Your task to perform on an android device: What is the recent news? Image 0: 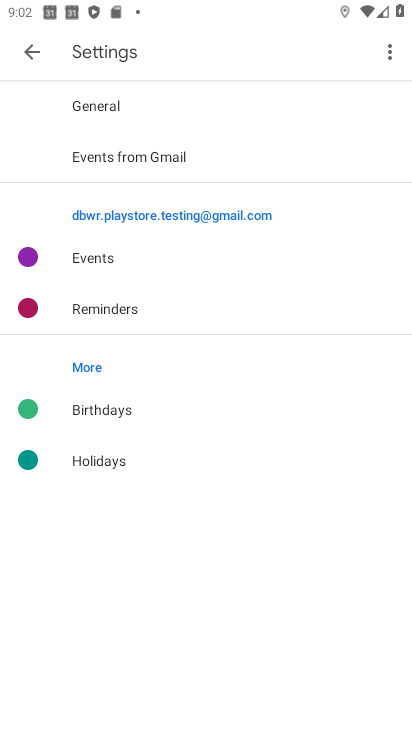
Step 0: press back button
Your task to perform on an android device: What is the recent news? Image 1: 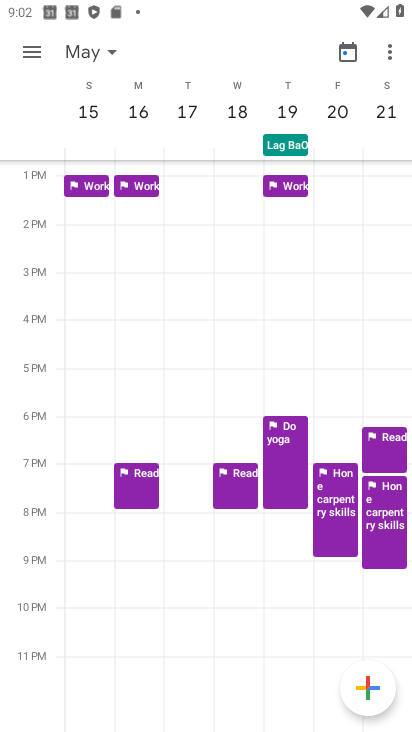
Step 1: press back button
Your task to perform on an android device: What is the recent news? Image 2: 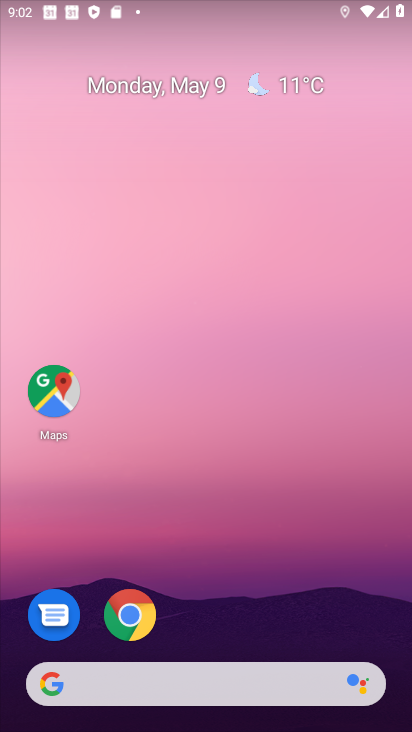
Step 2: drag from (246, 599) to (247, 43)
Your task to perform on an android device: What is the recent news? Image 3: 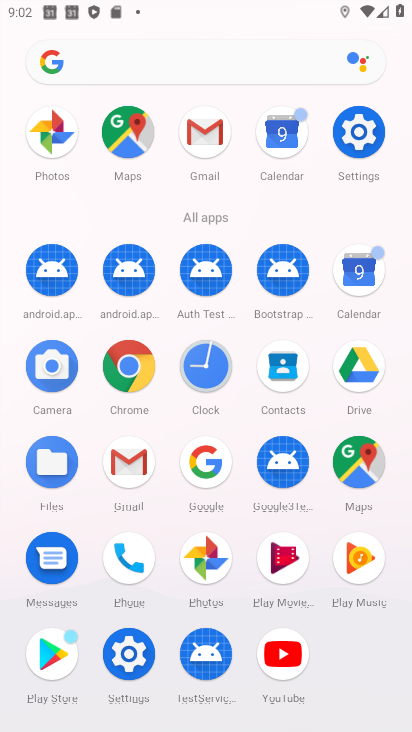
Step 3: drag from (9, 630) to (2, 283)
Your task to perform on an android device: What is the recent news? Image 4: 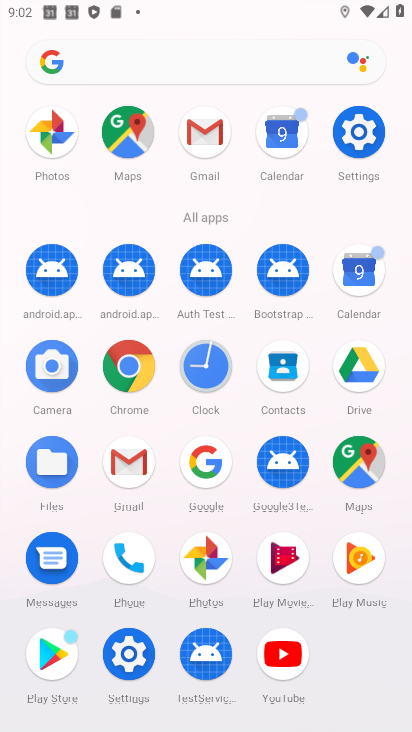
Step 4: click (127, 364)
Your task to perform on an android device: What is the recent news? Image 5: 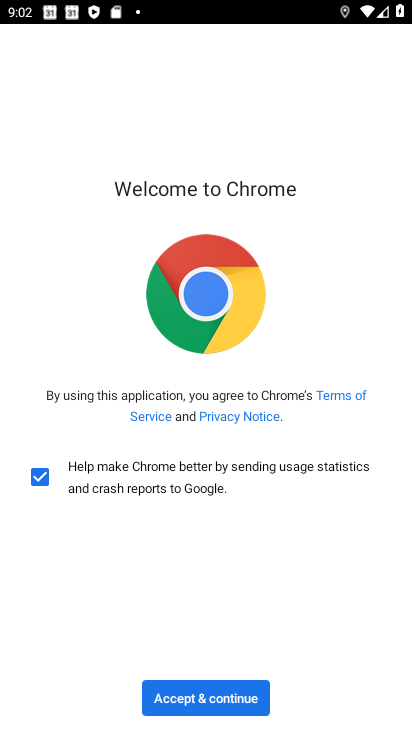
Step 5: click (226, 701)
Your task to perform on an android device: What is the recent news? Image 6: 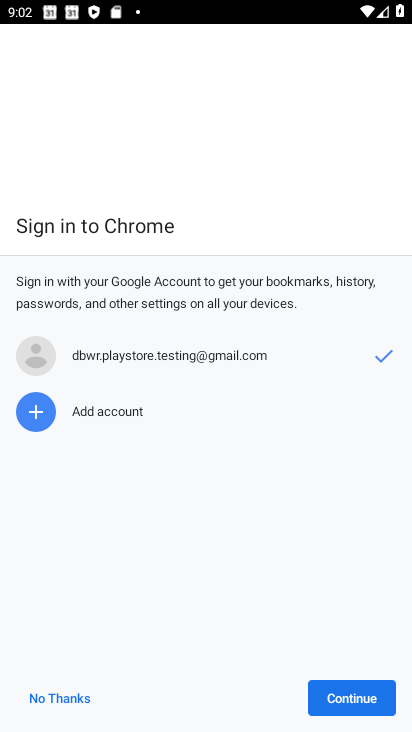
Step 6: click (349, 682)
Your task to perform on an android device: What is the recent news? Image 7: 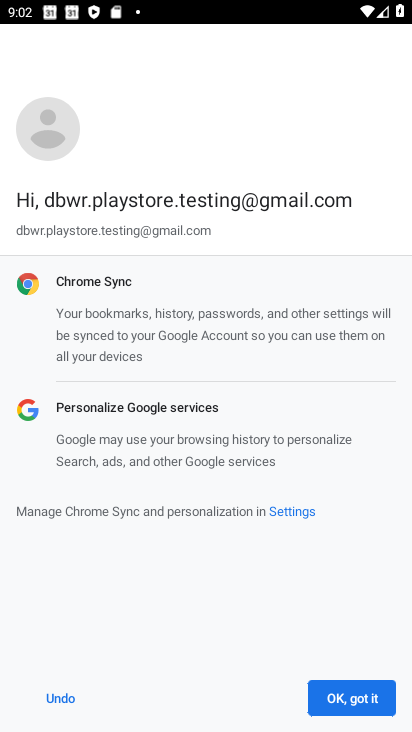
Step 7: click (355, 705)
Your task to perform on an android device: What is the recent news? Image 8: 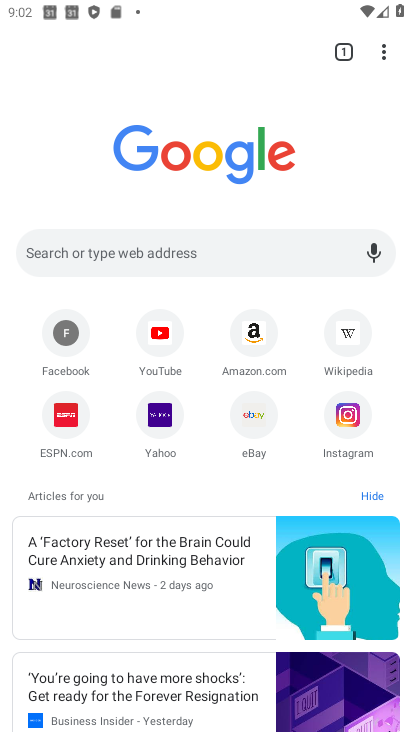
Step 8: task complete